Your task to perform on an android device: star an email in the gmail app Image 0: 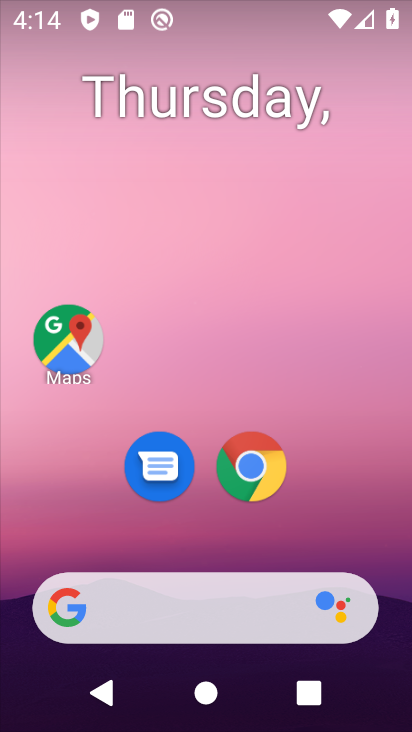
Step 0: drag from (345, 508) to (363, 19)
Your task to perform on an android device: star an email in the gmail app Image 1: 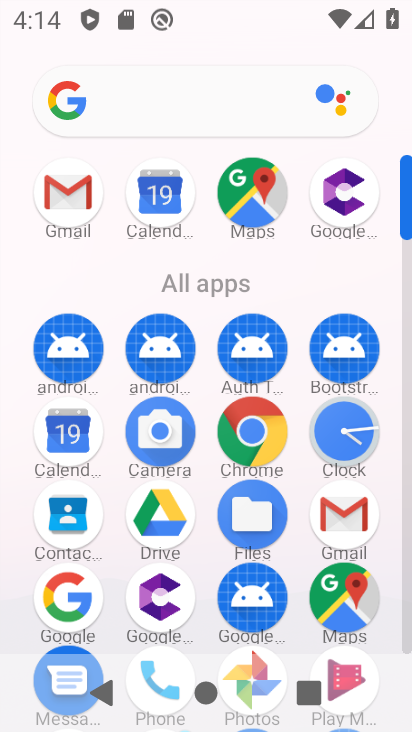
Step 1: click (79, 209)
Your task to perform on an android device: star an email in the gmail app Image 2: 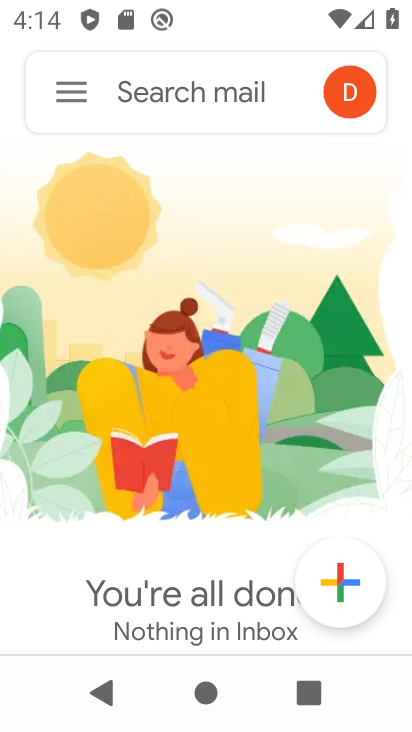
Step 2: click (89, 109)
Your task to perform on an android device: star an email in the gmail app Image 3: 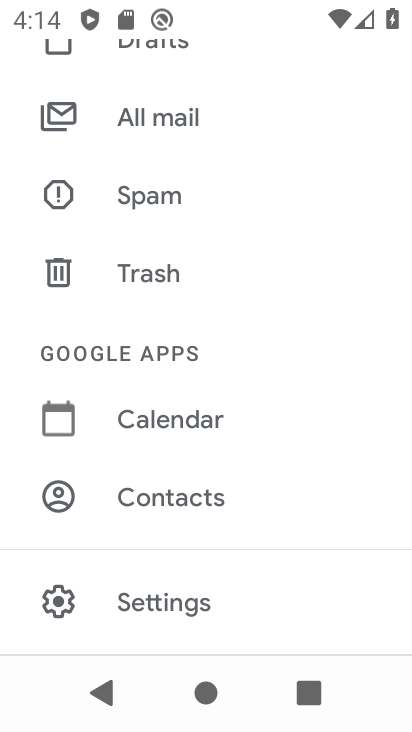
Step 3: drag from (230, 218) to (266, 665)
Your task to perform on an android device: star an email in the gmail app Image 4: 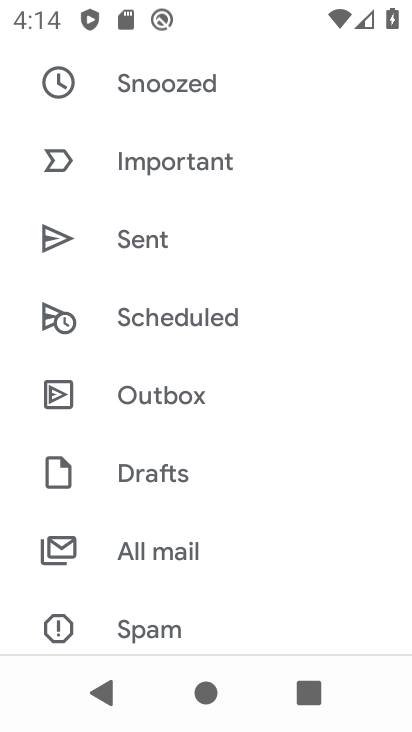
Step 4: drag from (228, 160) to (285, 653)
Your task to perform on an android device: star an email in the gmail app Image 5: 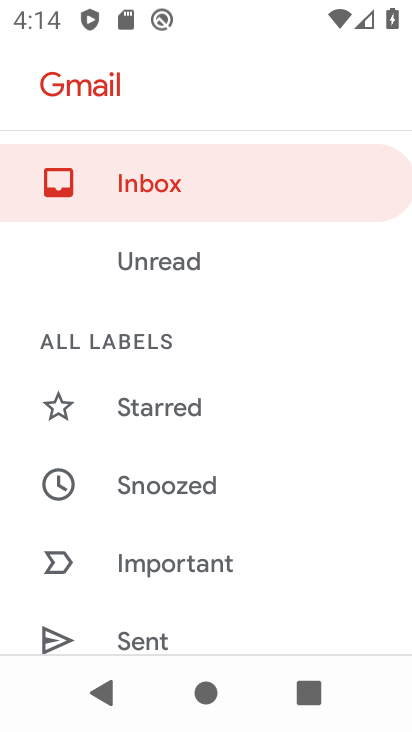
Step 5: drag from (223, 250) to (263, 624)
Your task to perform on an android device: star an email in the gmail app Image 6: 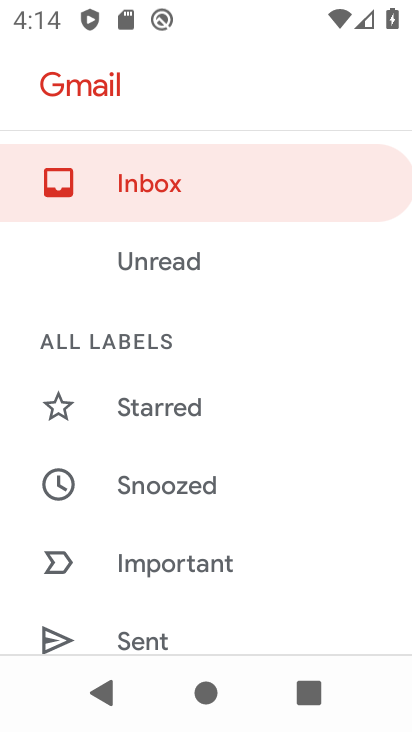
Step 6: drag from (246, 551) to (247, 228)
Your task to perform on an android device: star an email in the gmail app Image 7: 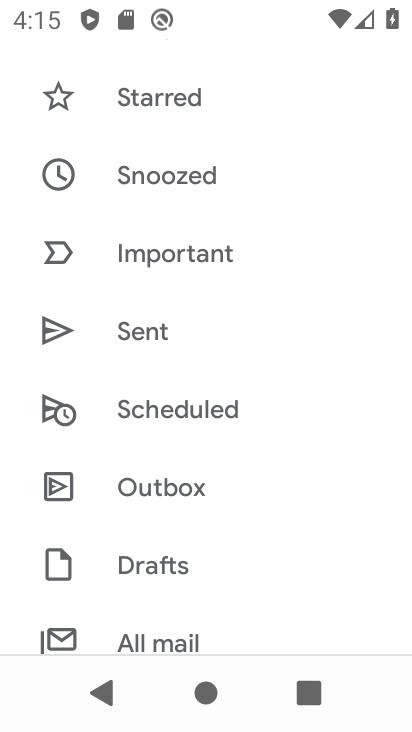
Step 7: drag from (281, 297) to (317, 634)
Your task to perform on an android device: star an email in the gmail app Image 8: 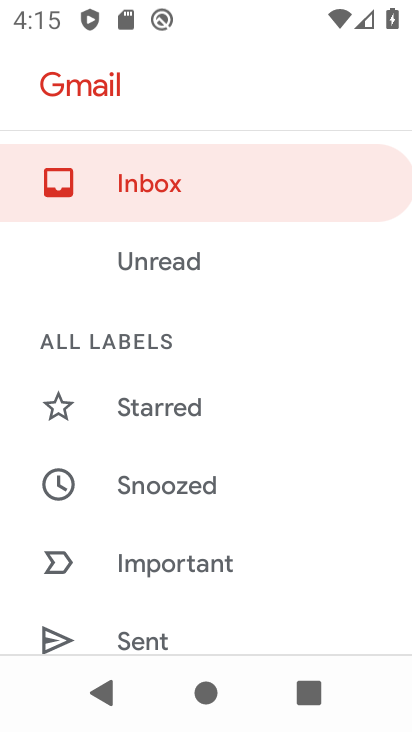
Step 8: drag from (231, 574) to (284, 196)
Your task to perform on an android device: star an email in the gmail app Image 9: 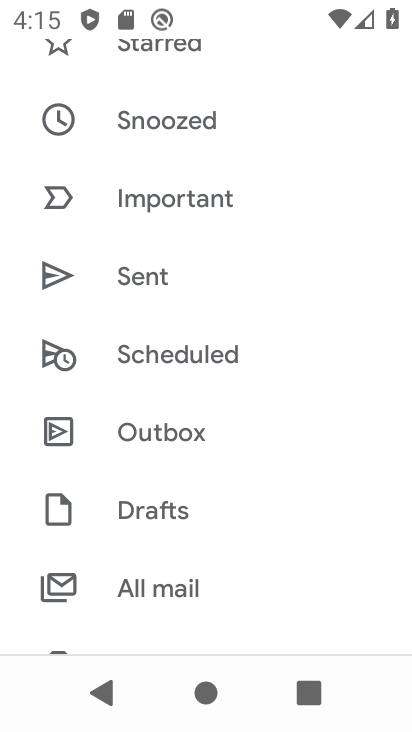
Step 9: drag from (261, 338) to (273, 728)
Your task to perform on an android device: star an email in the gmail app Image 10: 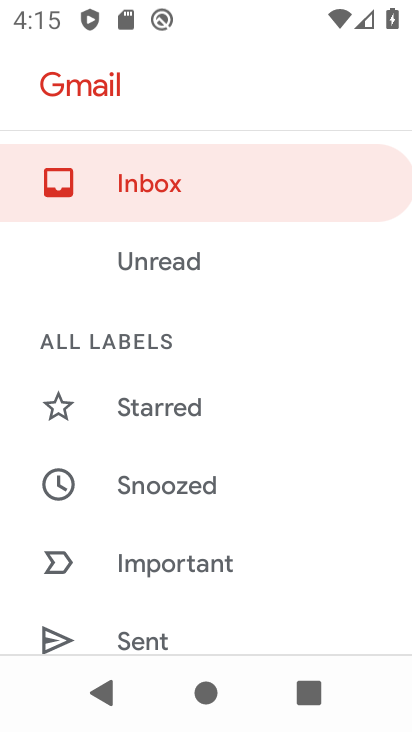
Step 10: click (152, 194)
Your task to perform on an android device: star an email in the gmail app Image 11: 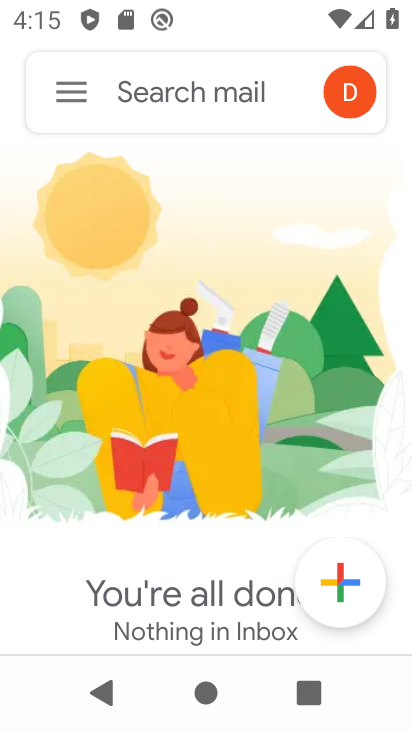
Step 11: task complete